Your task to perform on an android device: Open Chrome and go to settings Image 0: 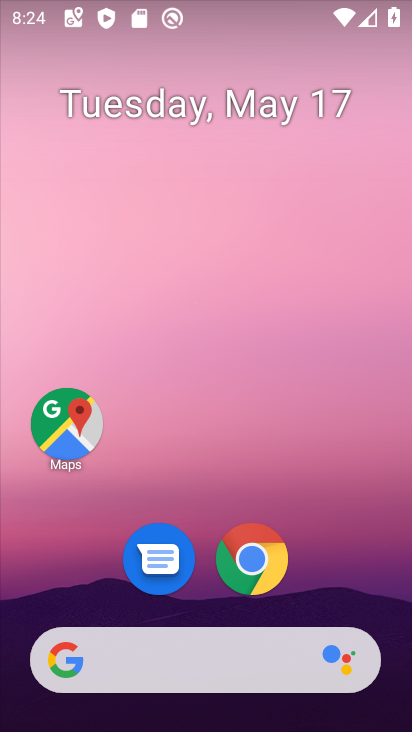
Step 0: click (254, 559)
Your task to perform on an android device: Open Chrome and go to settings Image 1: 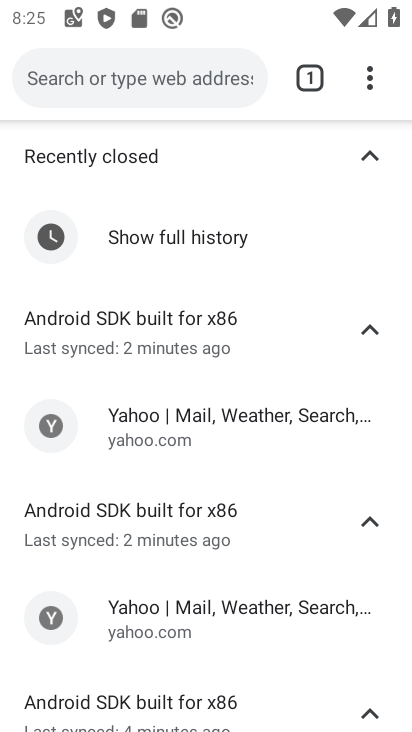
Step 1: click (361, 81)
Your task to perform on an android device: Open Chrome and go to settings Image 2: 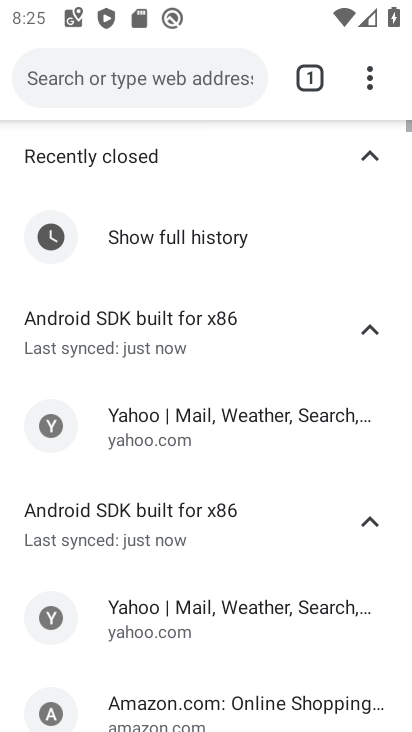
Step 2: click (361, 68)
Your task to perform on an android device: Open Chrome and go to settings Image 3: 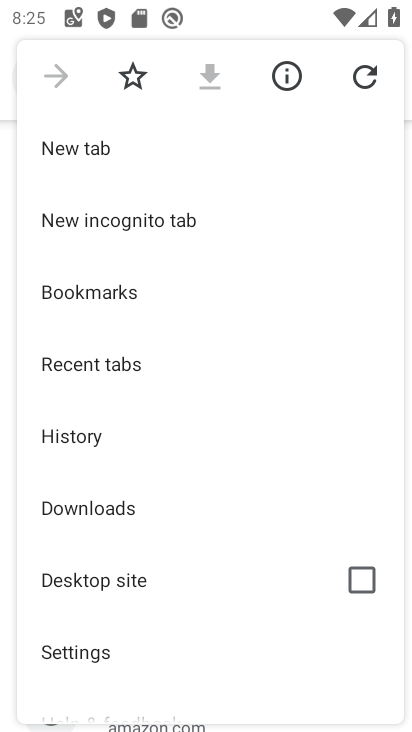
Step 3: click (88, 655)
Your task to perform on an android device: Open Chrome and go to settings Image 4: 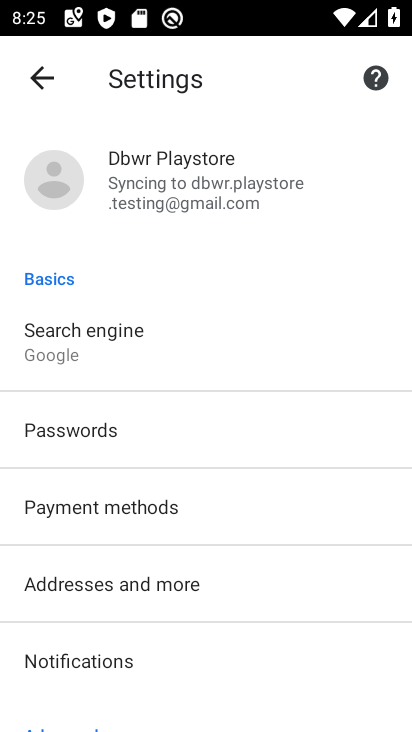
Step 4: task complete